Your task to perform on an android device: check out phone information Image 0: 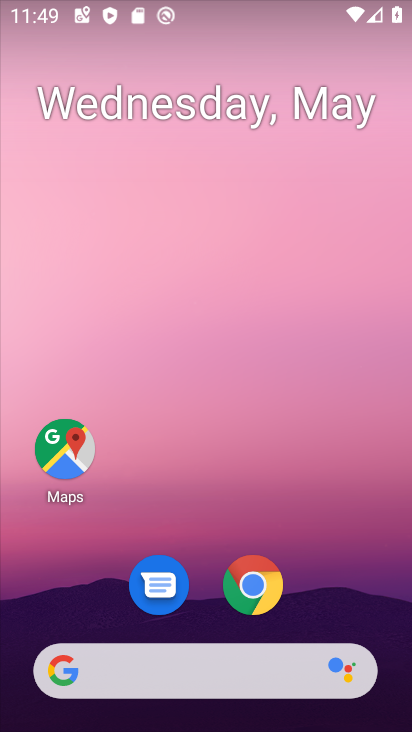
Step 0: drag from (238, 511) to (248, 97)
Your task to perform on an android device: check out phone information Image 1: 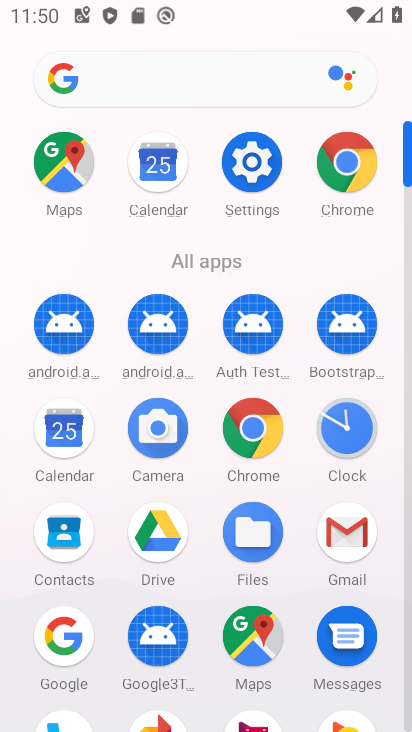
Step 1: click (224, 284)
Your task to perform on an android device: check out phone information Image 2: 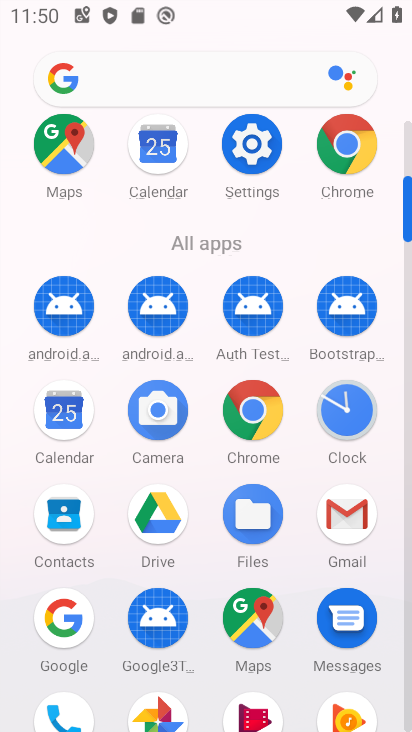
Step 2: drag from (187, 476) to (209, 218)
Your task to perform on an android device: check out phone information Image 3: 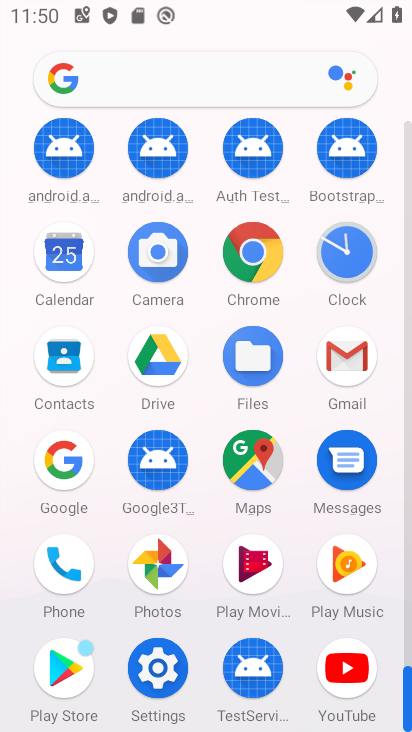
Step 3: click (62, 556)
Your task to perform on an android device: check out phone information Image 4: 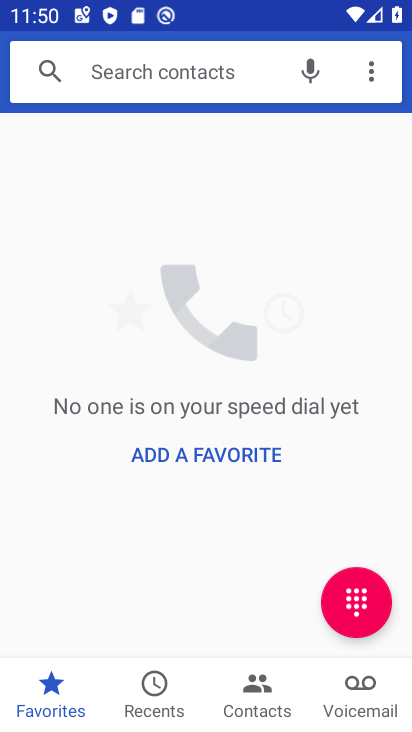
Step 4: click (374, 67)
Your task to perform on an android device: check out phone information Image 5: 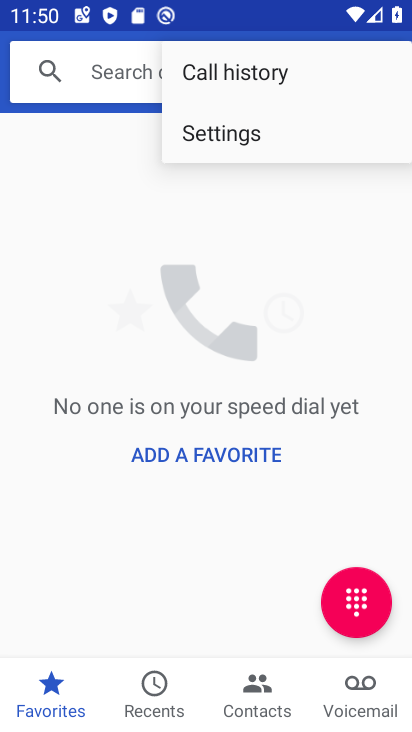
Step 5: click (295, 139)
Your task to perform on an android device: check out phone information Image 6: 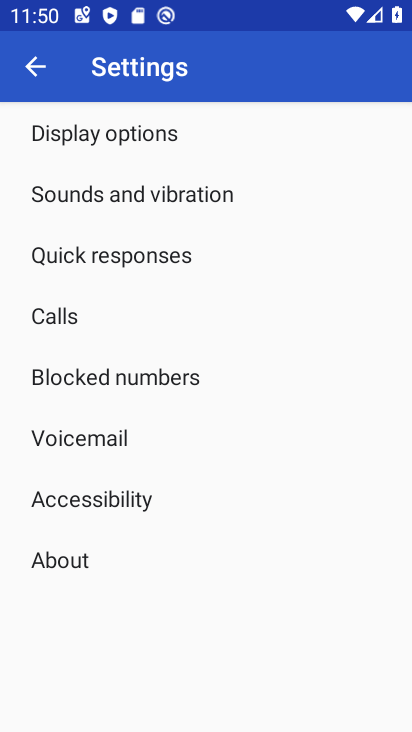
Step 6: click (96, 559)
Your task to perform on an android device: check out phone information Image 7: 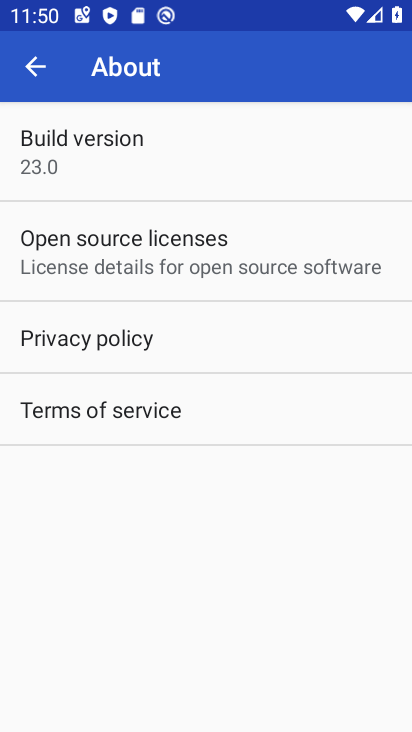
Step 7: task complete